Your task to perform on an android device: turn off javascript in the chrome app Image 0: 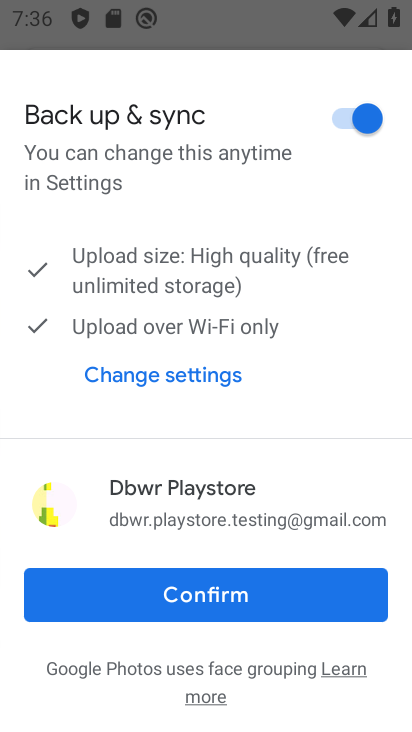
Step 0: press home button
Your task to perform on an android device: turn off javascript in the chrome app Image 1: 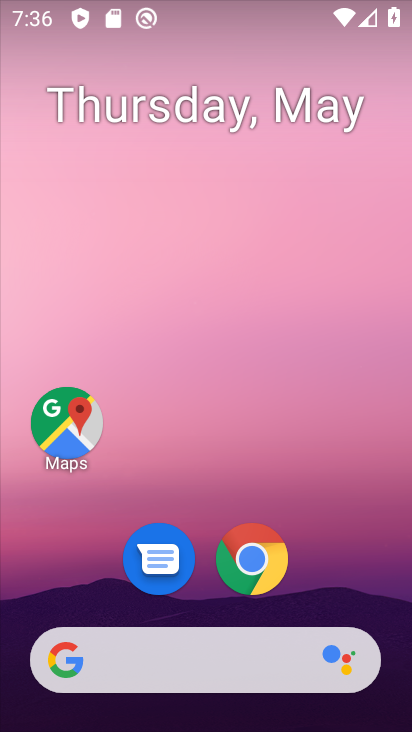
Step 1: drag from (316, 572) to (297, 221)
Your task to perform on an android device: turn off javascript in the chrome app Image 2: 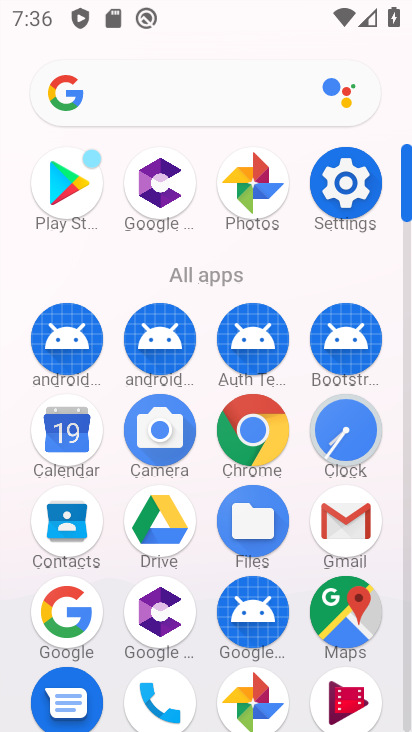
Step 2: click (255, 434)
Your task to perform on an android device: turn off javascript in the chrome app Image 3: 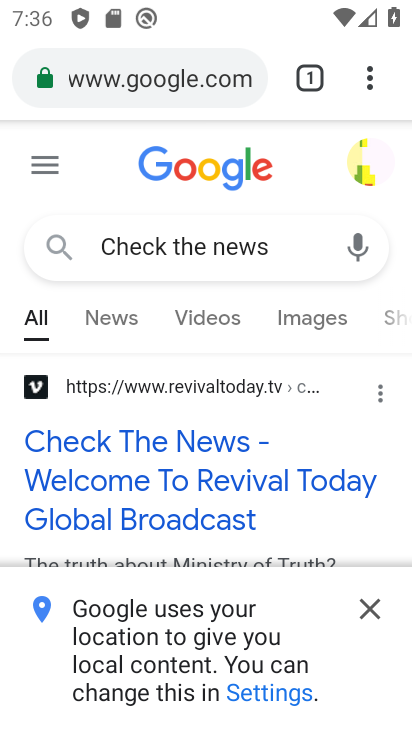
Step 3: click (364, 75)
Your task to perform on an android device: turn off javascript in the chrome app Image 4: 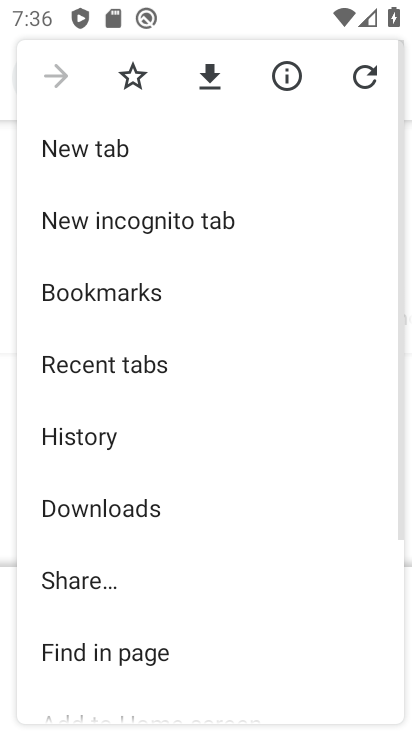
Step 4: drag from (226, 630) to (249, 184)
Your task to perform on an android device: turn off javascript in the chrome app Image 5: 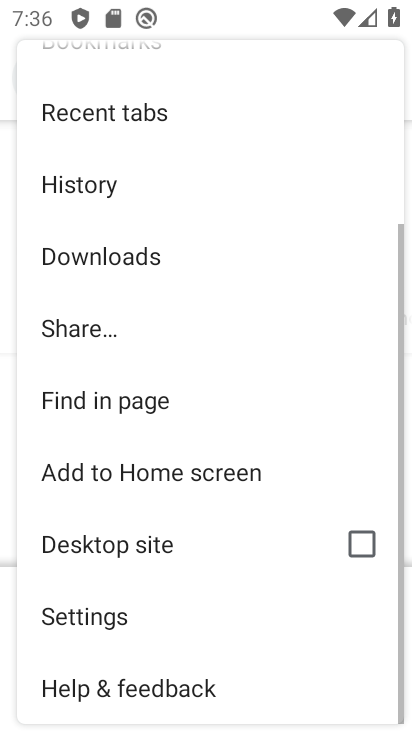
Step 5: drag from (231, 584) to (214, 295)
Your task to perform on an android device: turn off javascript in the chrome app Image 6: 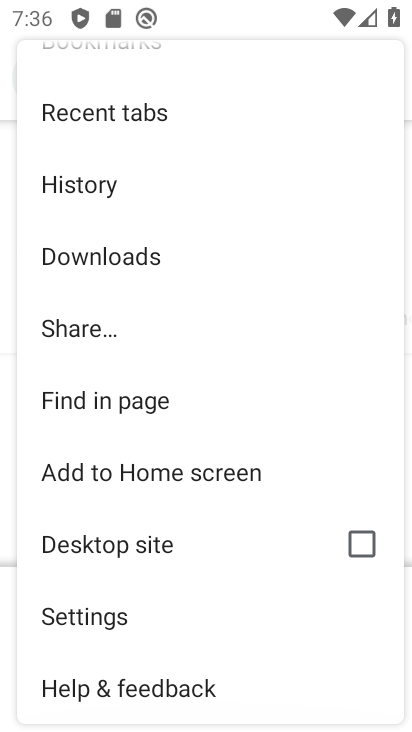
Step 6: click (97, 610)
Your task to perform on an android device: turn off javascript in the chrome app Image 7: 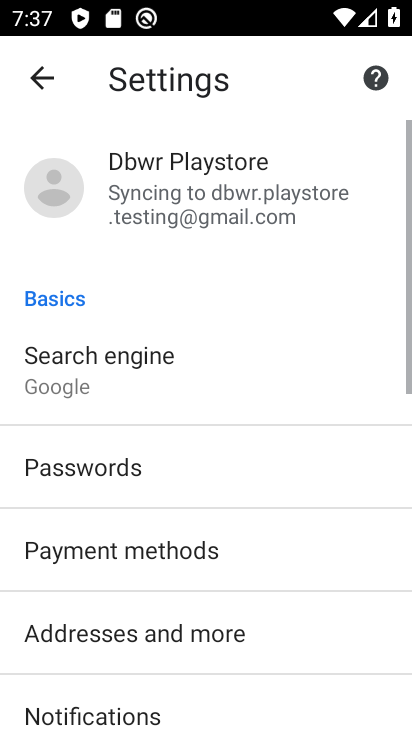
Step 7: drag from (170, 605) to (259, 177)
Your task to perform on an android device: turn off javascript in the chrome app Image 8: 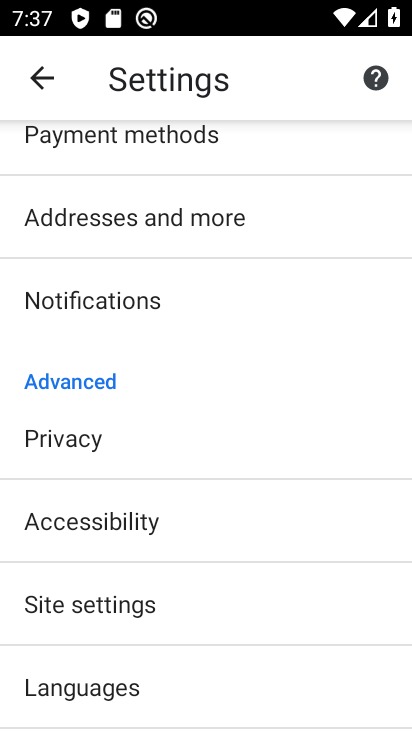
Step 8: drag from (161, 640) to (201, 396)
Your task to perform on an android device: turn off javascript in the chrome app Image 9: 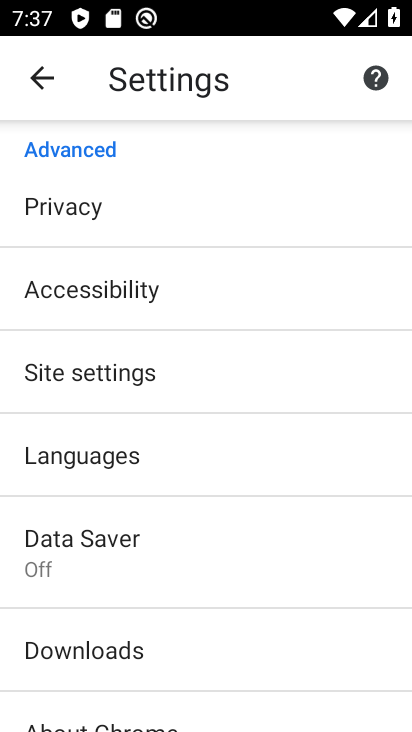
Step 9: drag from (172, 559) to (196, 457)
Your task to perform on an android device: turn off javascript in the chrome app Image 10: 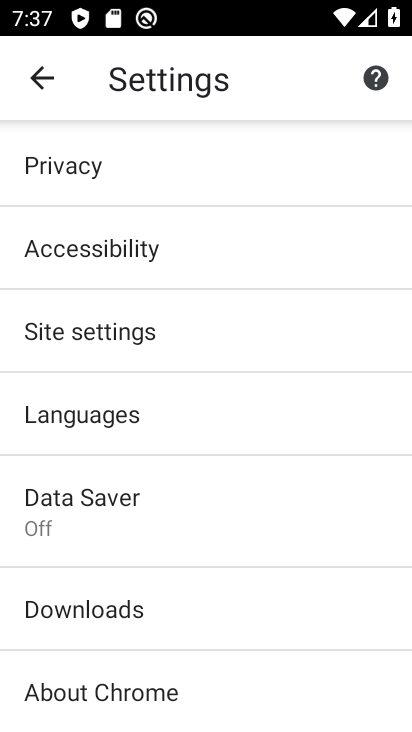
Step 10: click (190, 329)
Your task to perform on an android device: turn off javascript in the chrome app Image 11: 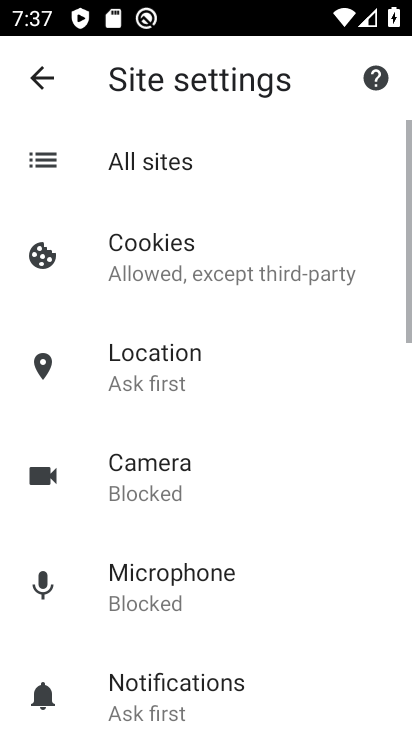
Step 11: drag from (218, 628) to (241, 270)
Your task to perform on an android device: turn off javascript in the chrome app Image 12: 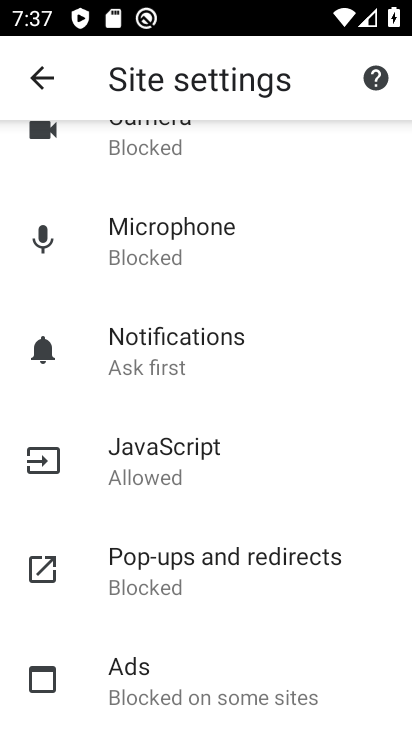
Step 12: click (219, 475)
Your task to perform on an android device: turn off javascript in the chrome app Image 13: 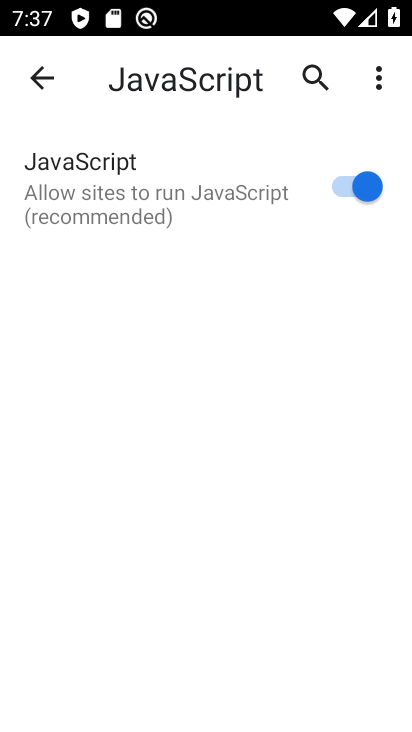
Step 13: click (352, 189)
Your task to perform on an android device: turn off javascript in the chrome app Image 14: 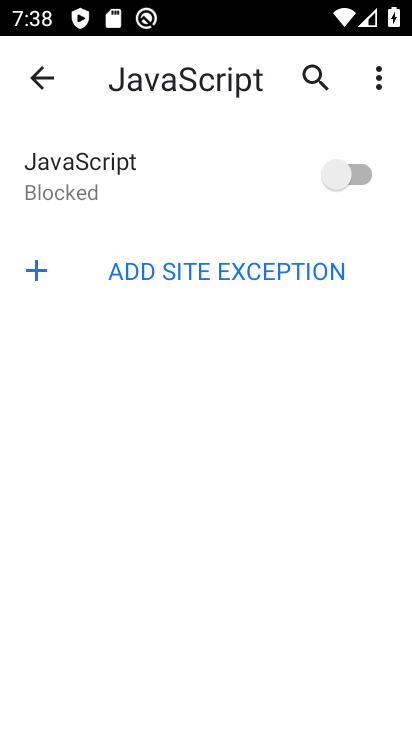
Step 14: task complete